Your task to perform on an android device: change text size in settings app Image 0: 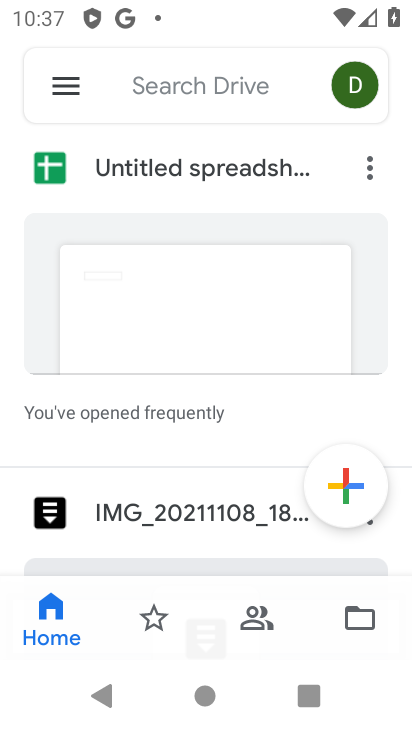
Step 0: press home button
Your task to perform on an android device: change text size in settings app Image 1: 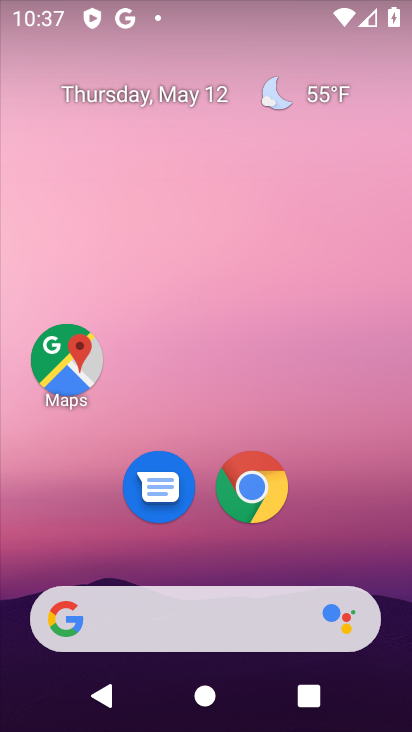
Step 1: drag from (346, 559) to (333, 48)
Your task to perform on an android device: change text size in settings app Image 2: 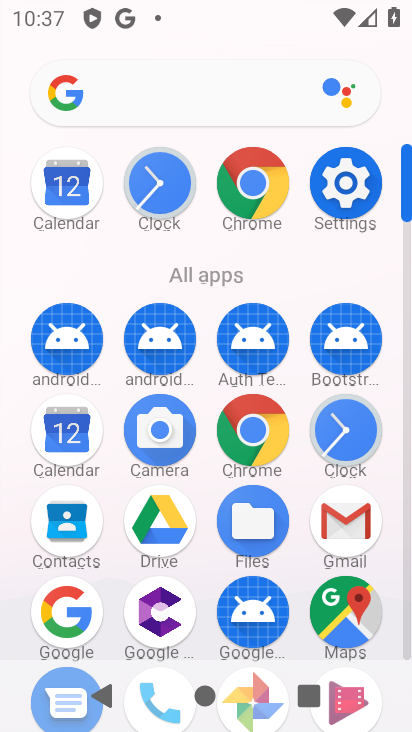
Step 2: click (348, 190)
Your task to perform on an android device: change text size in settings app Image 3: 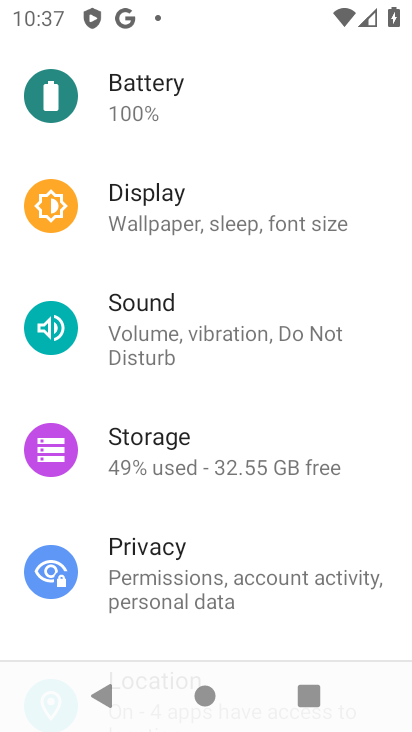
Step 3: click (145, 217)
Your task to perform on an android device: change text size in settings app Image 4: 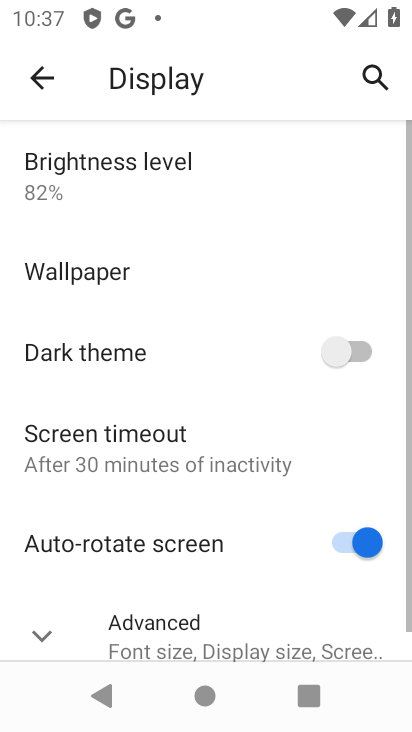
Step 4: drag from (86, 566) to (83, 247)
Your task to perform on an android device: change text size in settings app Image 5: 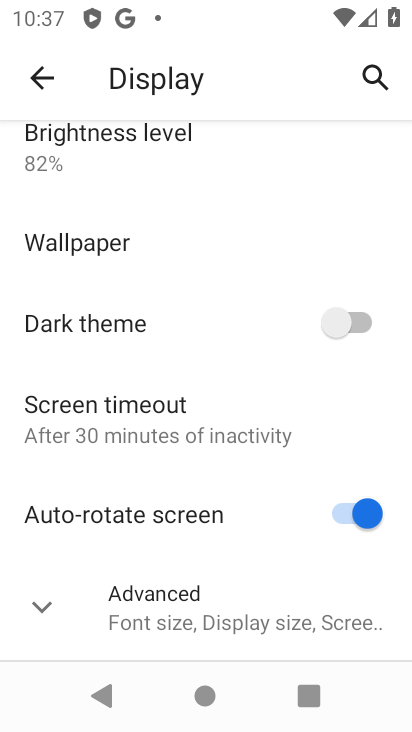
Step 5: click (40, 612)
Your task to perform on an android device: change text size in settings app Image 6: 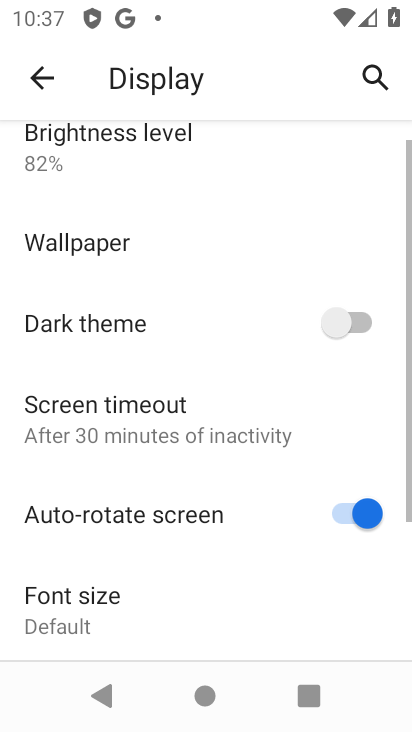
Step 6: click (40, 612)
Your task to perform on an android device: change text size in settings app Image 7: 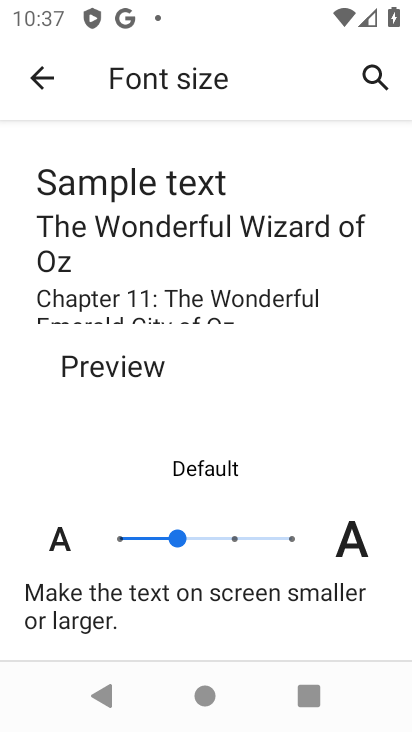
Step 7: click (124, 538)
Your task to perform on an android device: change text size in settings app Image 8: 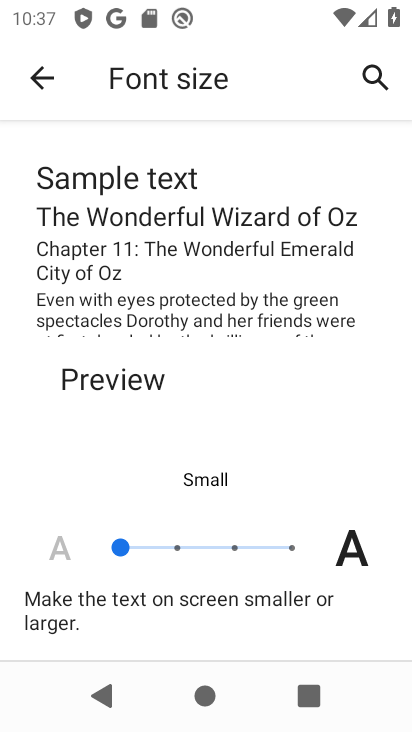
Step 8: task complete